Your task to perform on an android device: Open the phone app and click the voicemail tab. Image 0: 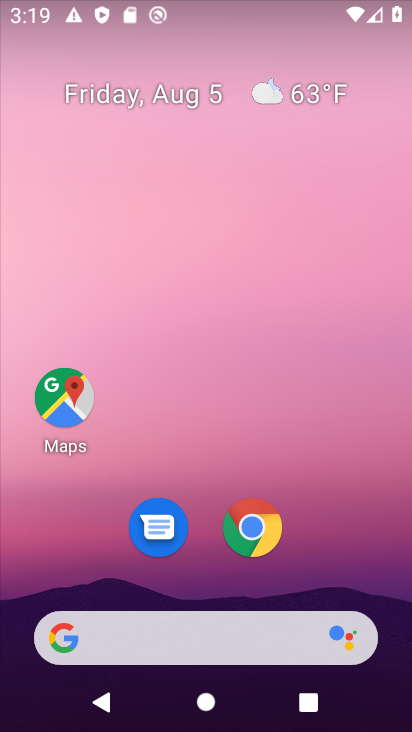
Step 0: drag from (218, 280) to (204, 89)
Your task to perform on an android device: Open the phone app and click the voicemail tab. Image 1: 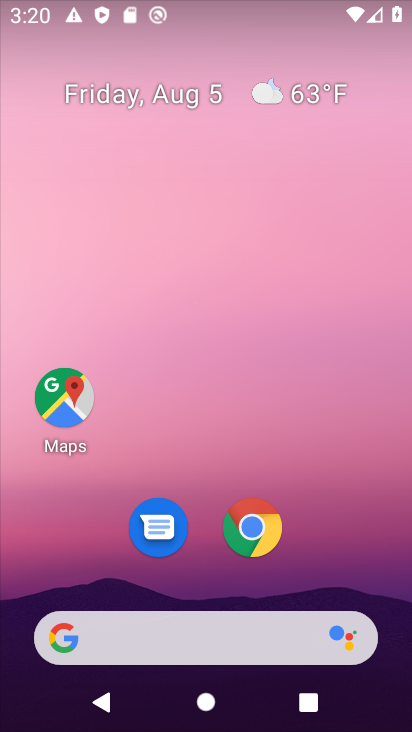
Step 1: drag from (185, 350) to (179, 59)
Your task to perform on an android device: Open the phone app and click the voicemail tab. Image 2: 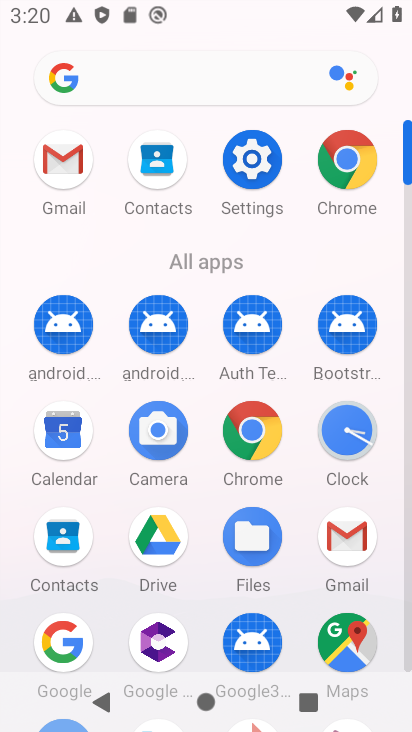
Step 2: drag from (196, 605) to (182, 245)
Your task to perform on an android device: Open the phone app and click the voicemail tab. Image 3: 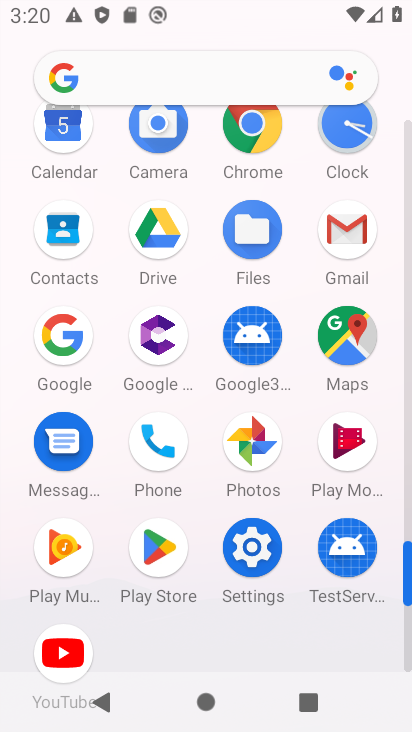
Step 3: click (171, 447)
Your task to perform on an android device: Open the phone app and click the voicemail tab. Image 4: 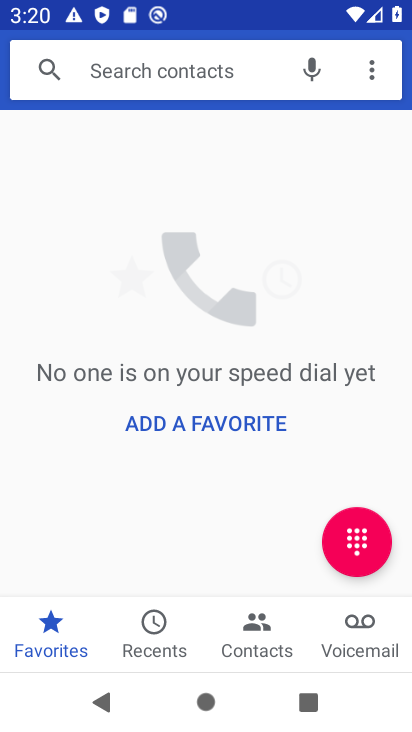
Step 4: click (355, 651)
Your task to perform on an android device: Open the phone app and click the voicemail tab. Image 5: 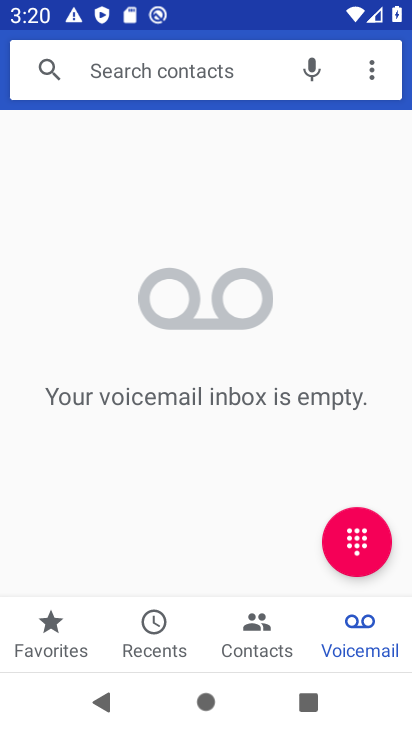
Step 5: task complete